Your task to perform on an android device: Open Chrome and go to the settings page Image 0: 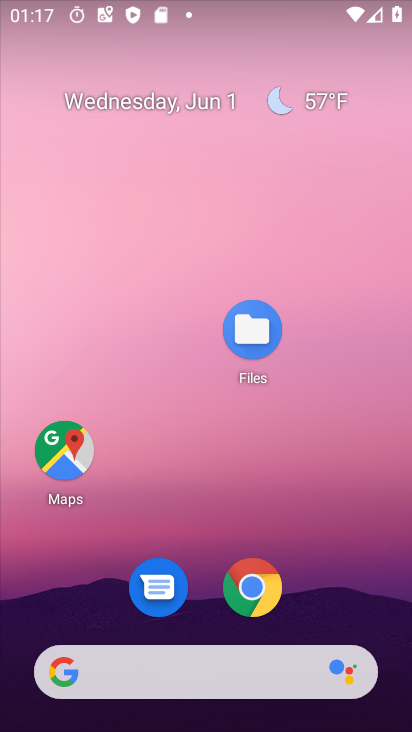
Step 0: press home button
Your task to perform on an android device: Open Chrome and go to the settings page Image 1: 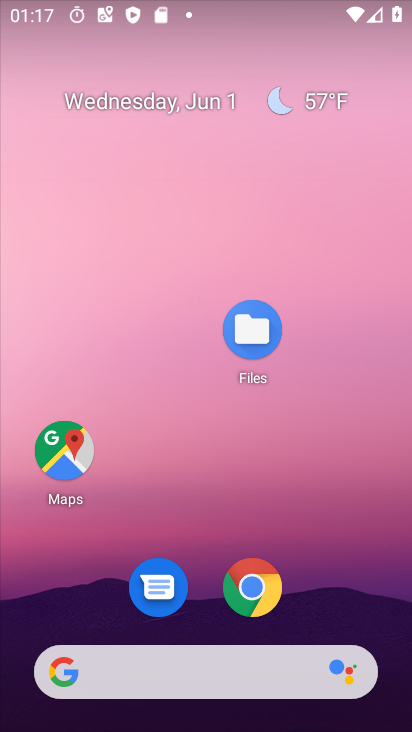
Step 1: click (240, 583)
Your task to perform on an android device: Open Chrome and go to the settings page Image 2: 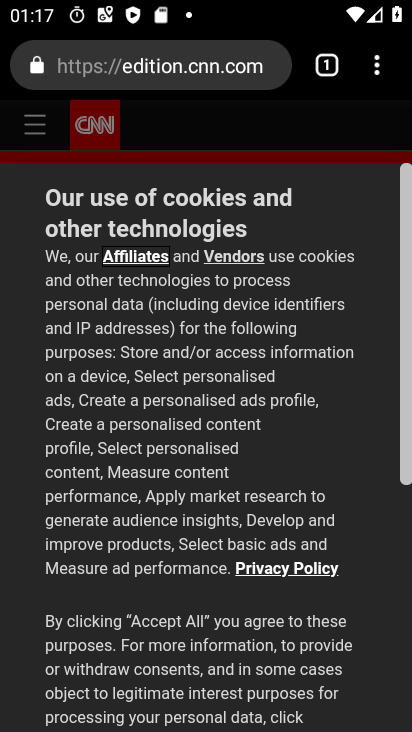
Step 2: task complete